Your task to perform on an android device: check android version Image 0: 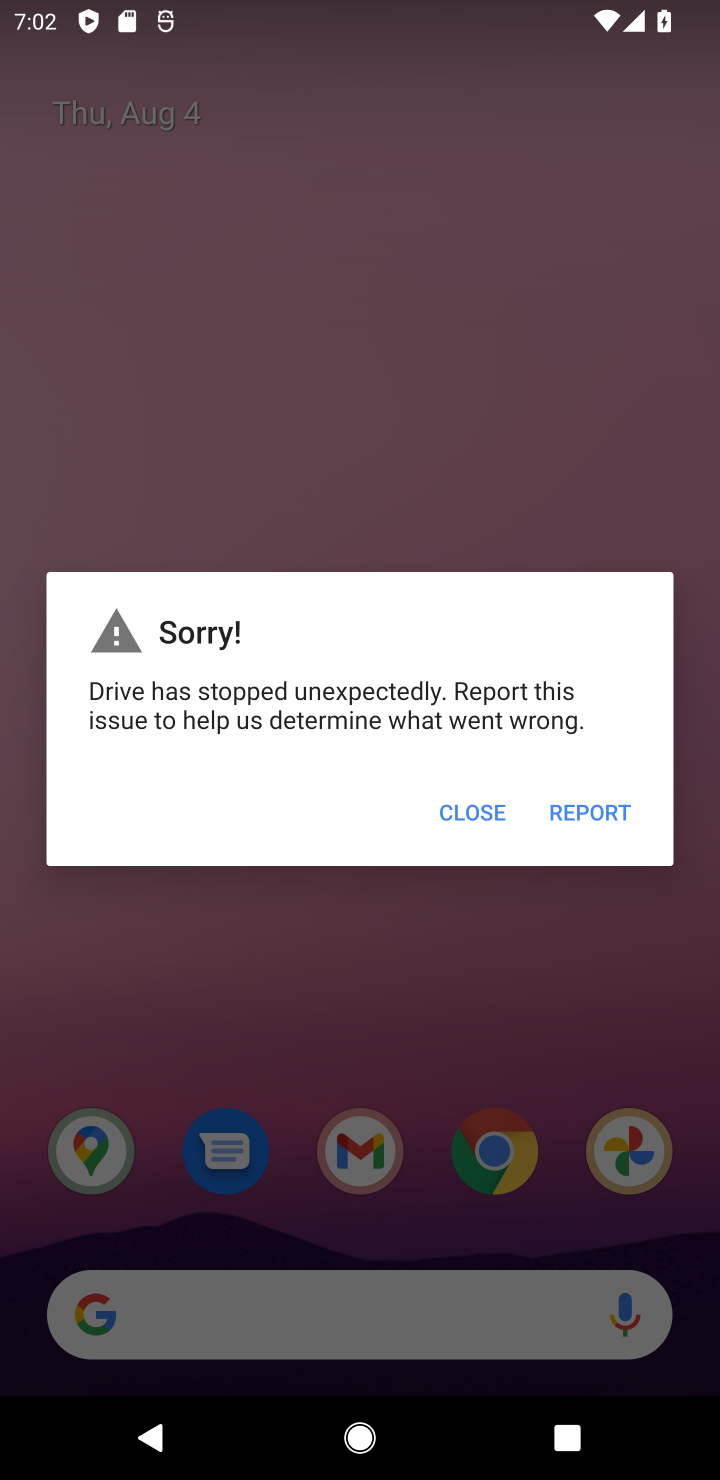
Step 0: drag from (568, 1049) to (565, 628)
Your task to perform on an android device: check android version Image 1: 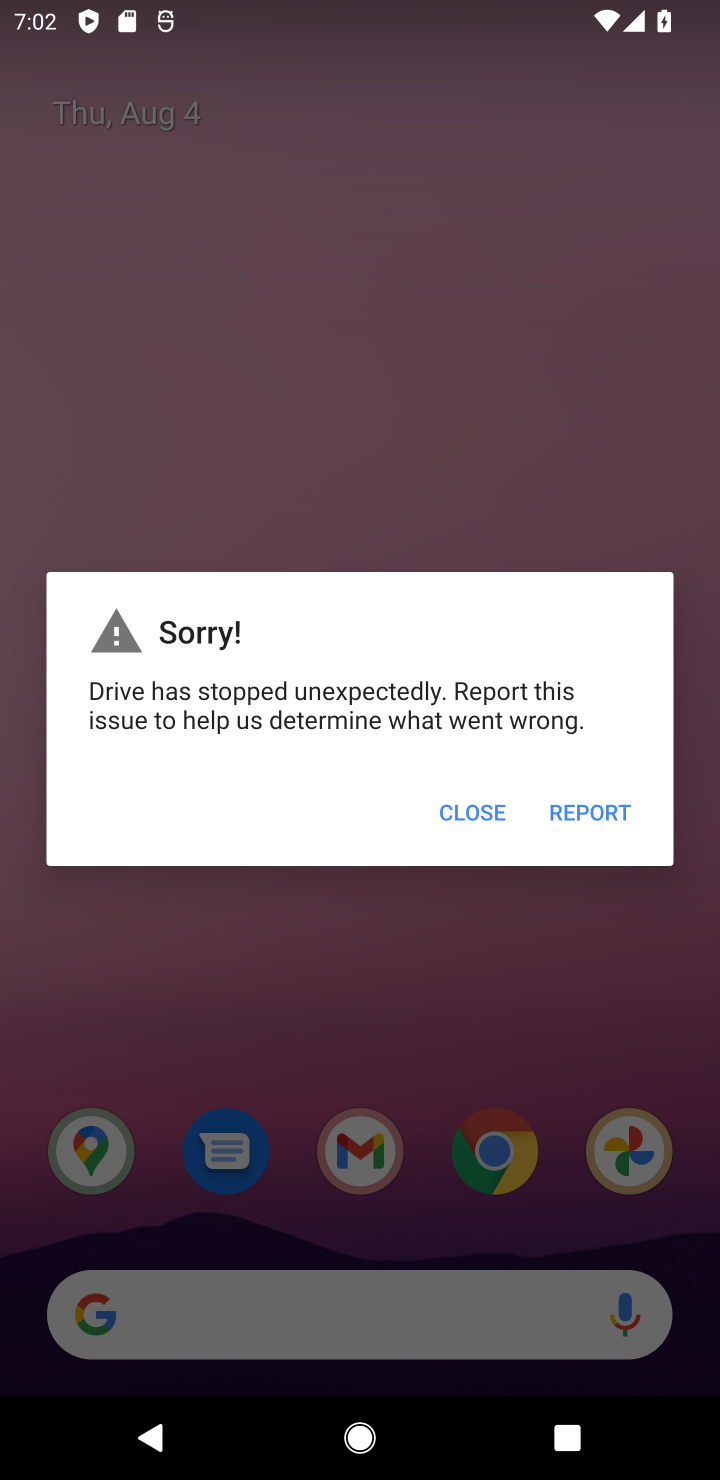
Step 1: click (469, 797)
Your task to perform on an android device: check android version Image 2: 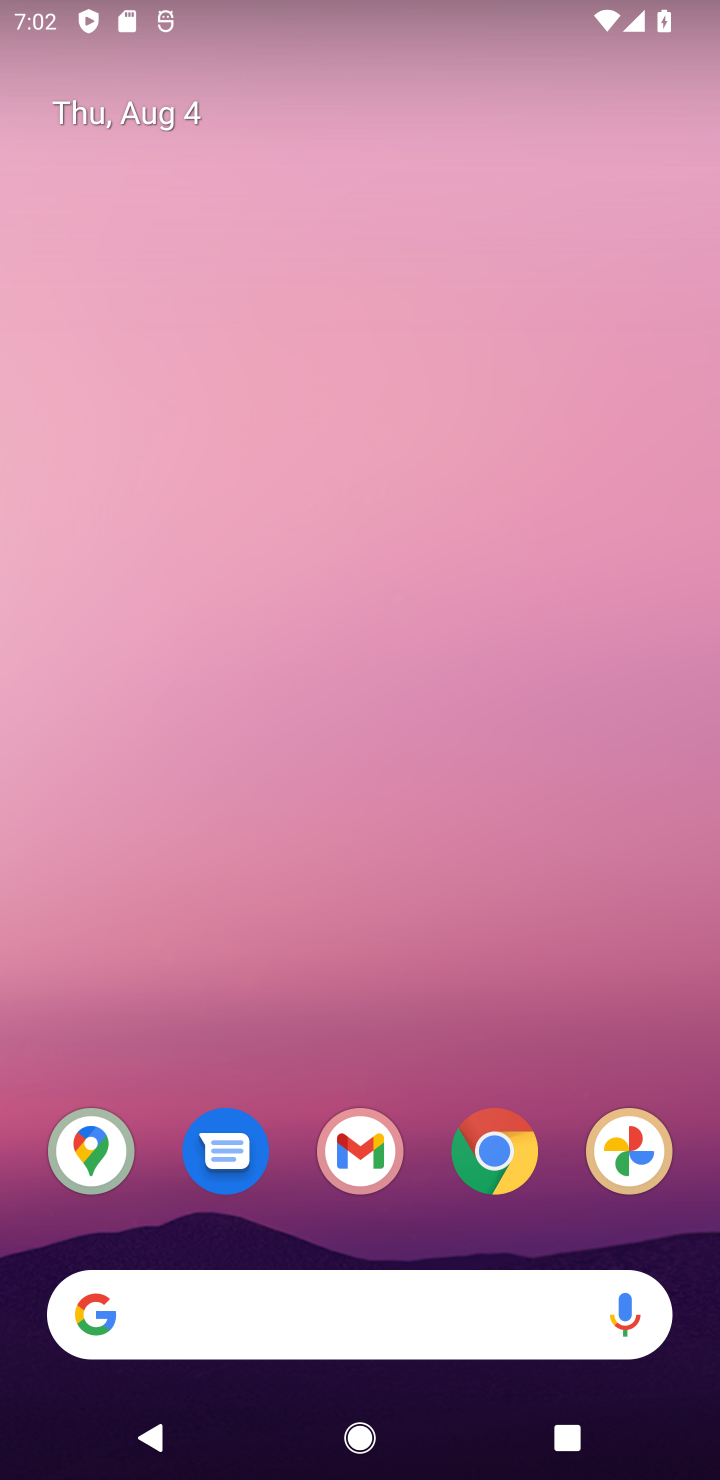
Step 2: drag from (570, 1079) to (467, 38)
Your task to perform on an android device: check android version Image 3: 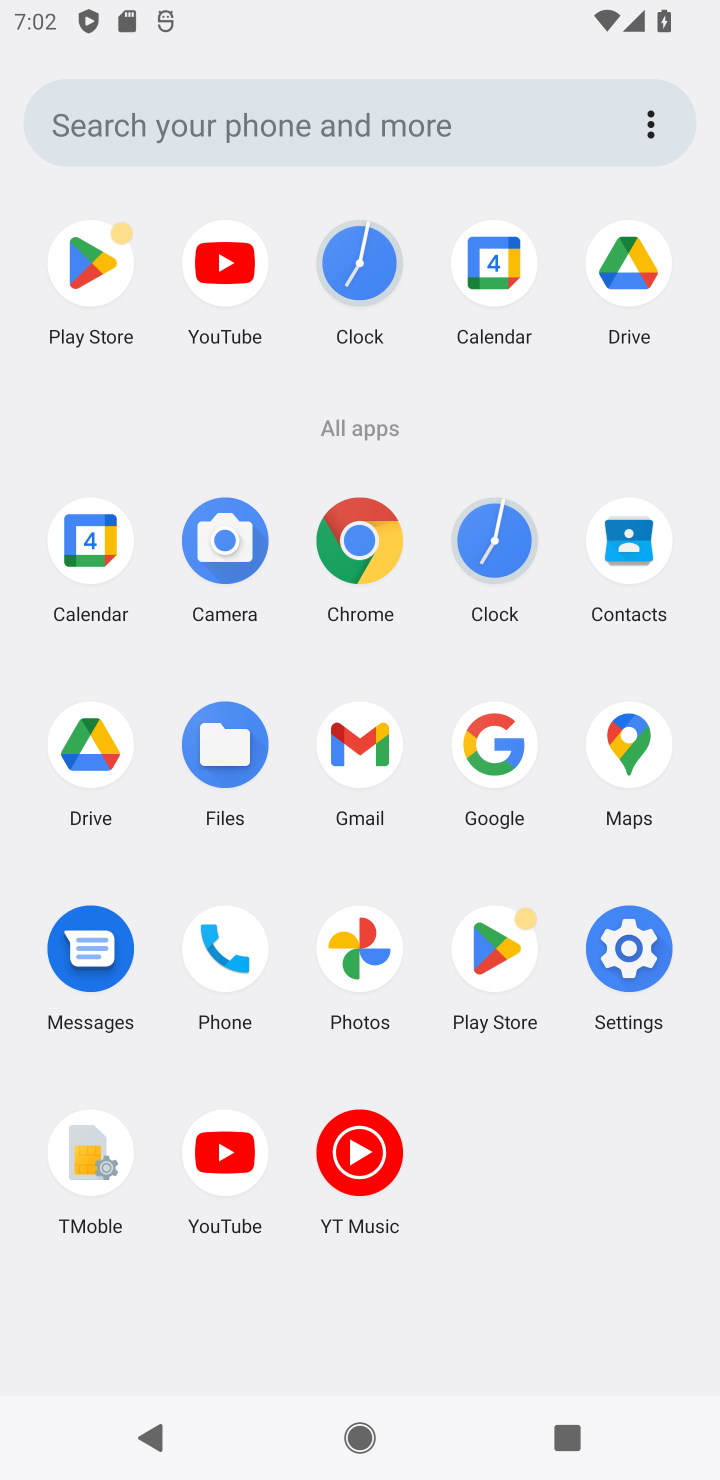
Step 3: click (667, 965)
Your task to perform on an android device: check android version Image 4: 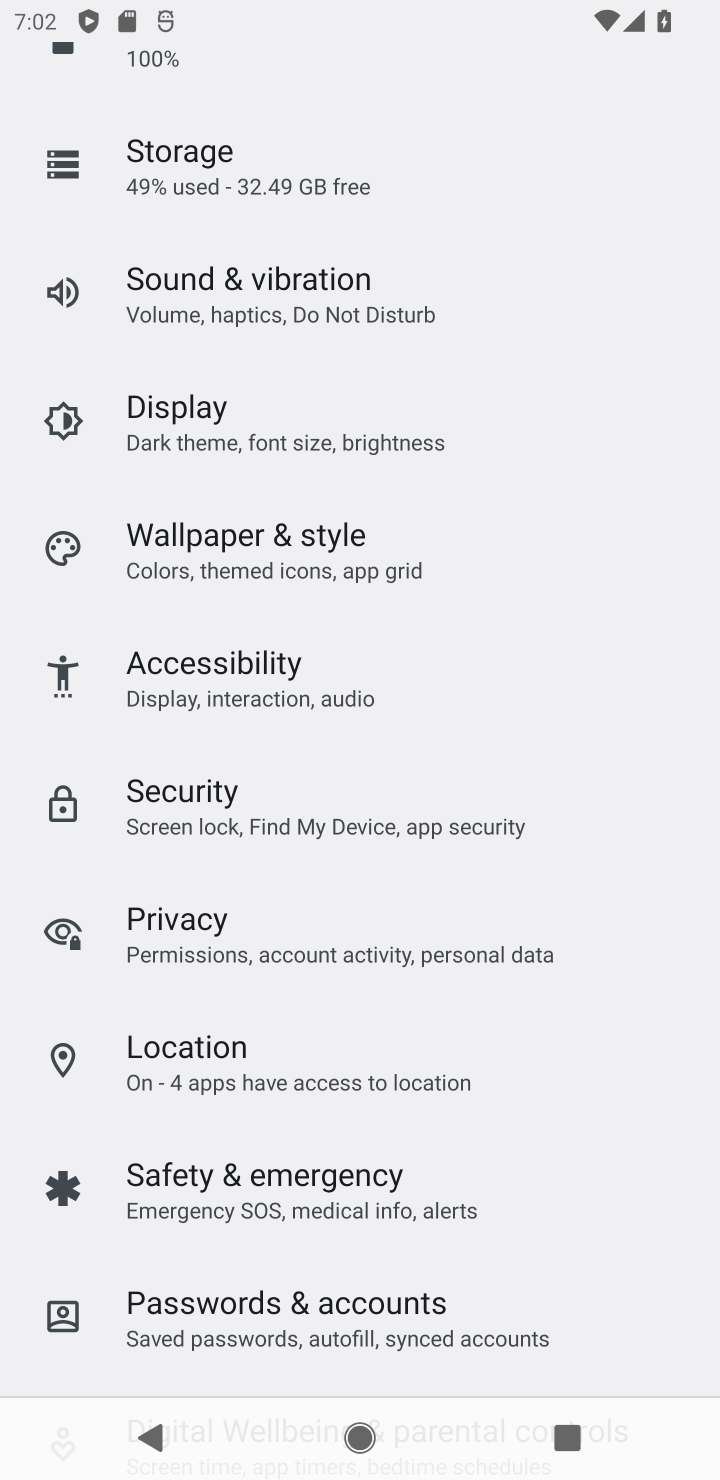
Step 4: drag from (523, 1264) to (405, 276)
Your task to perform on an android device: check android version Image 5: 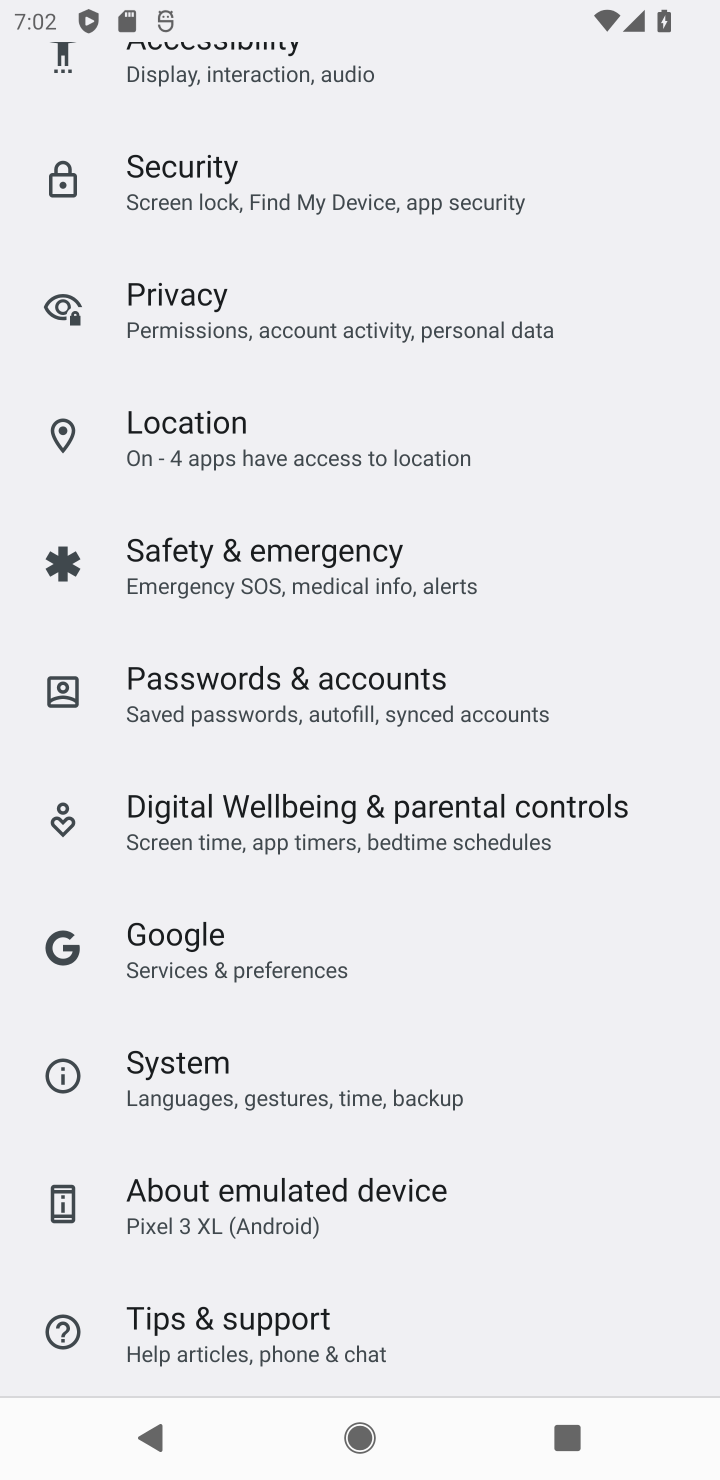
Step 5: click (377, 1237)
Your task to perform on an android device: check android version Image 6: 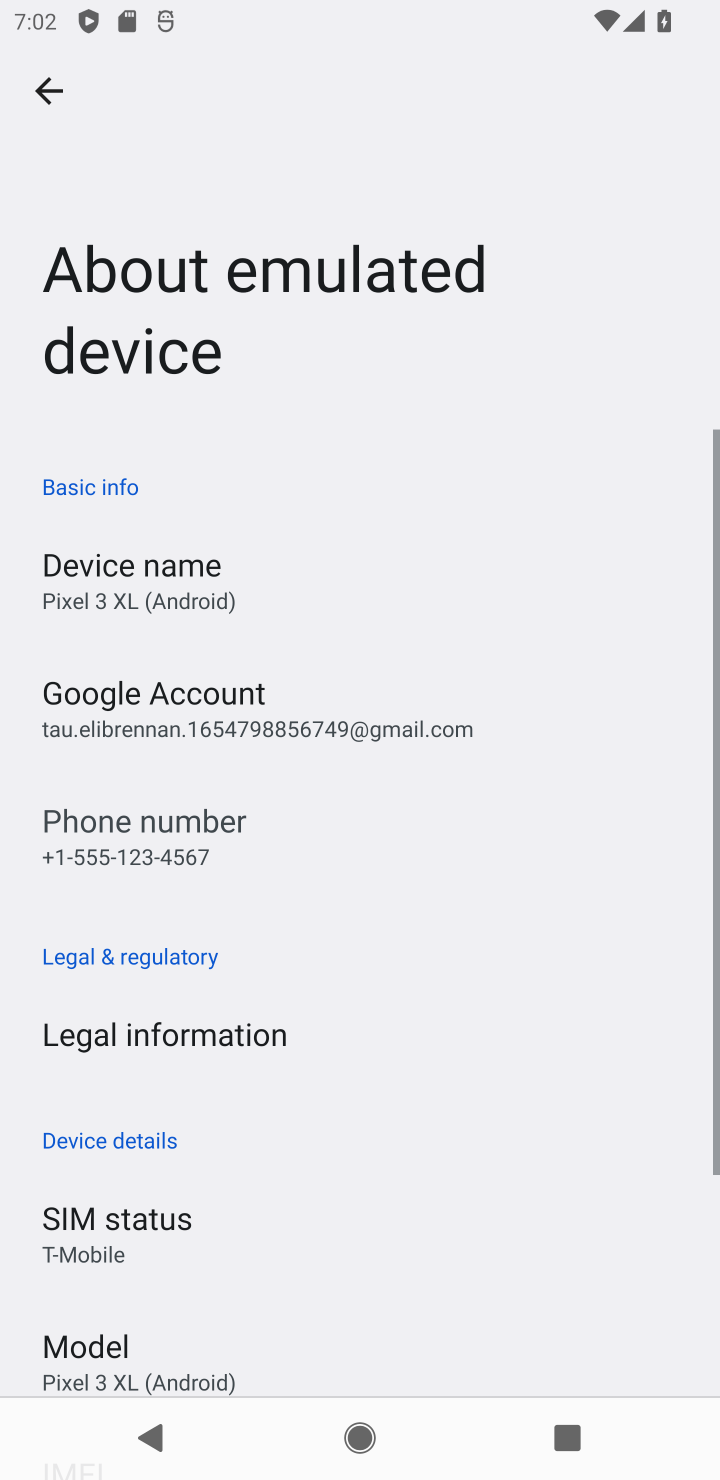
Step 6: drag from (397, 1296) to (268, 420)
Your task to perform on an android device: check android version Image 7: 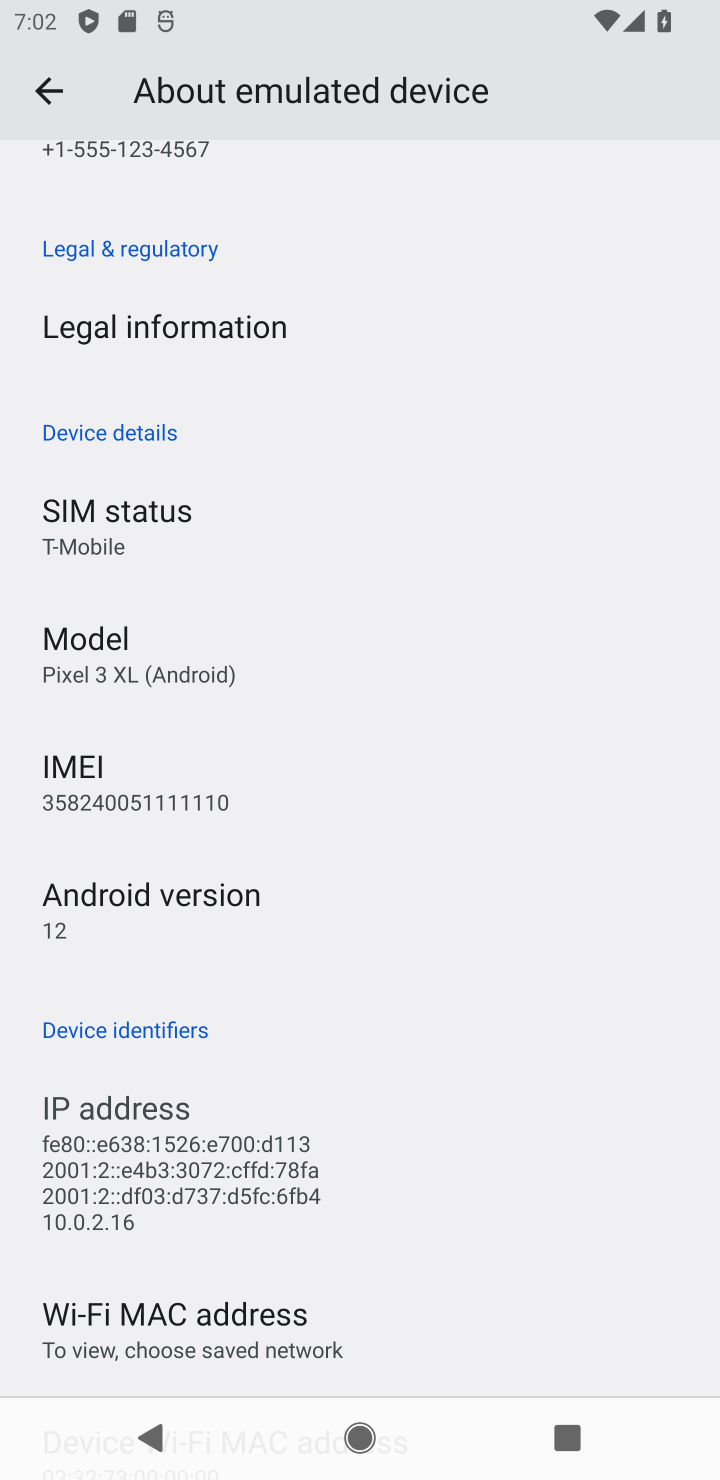
Step 7: click (256, 882)
Your task to perform on an android device: check android version Image 8: 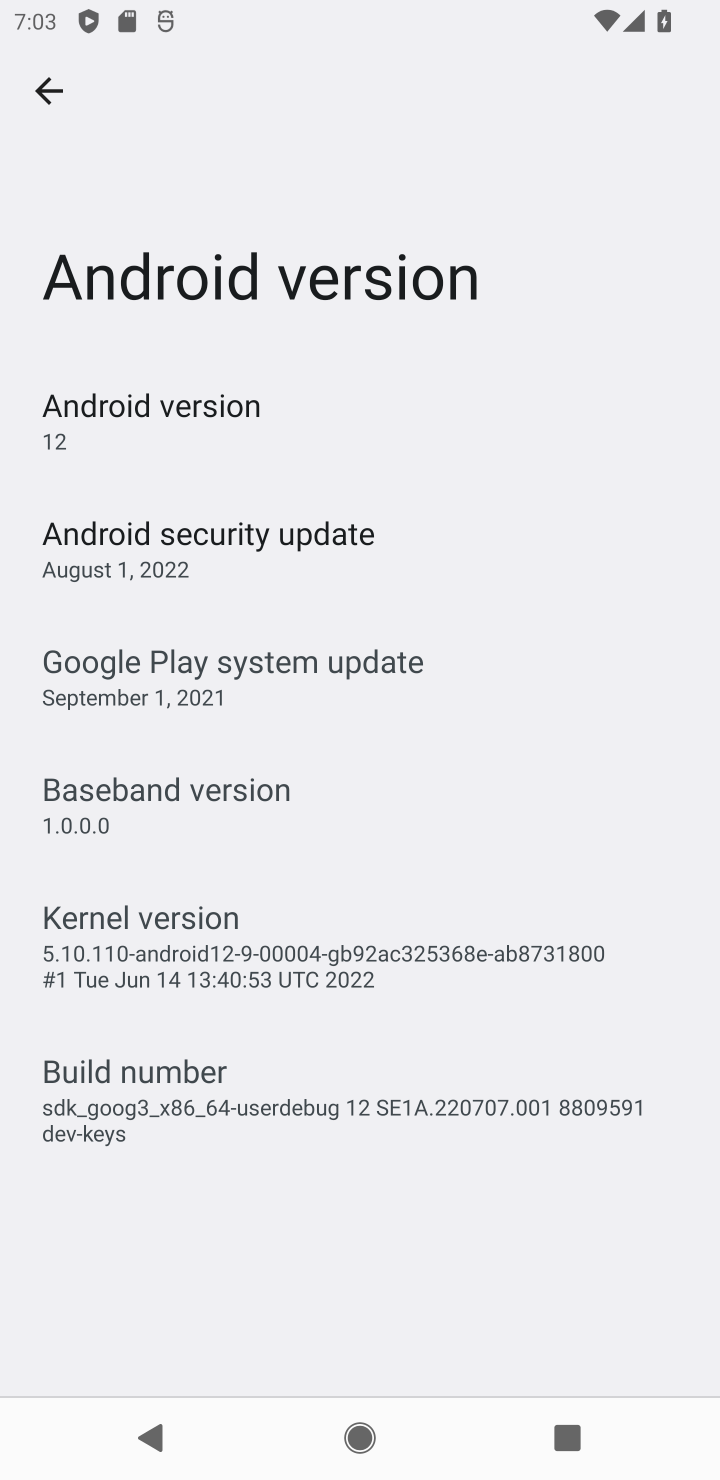
Step 8: task complete